Your task to perform on an android device: Search for the best Nike running shoes on Nike.com Image 0: 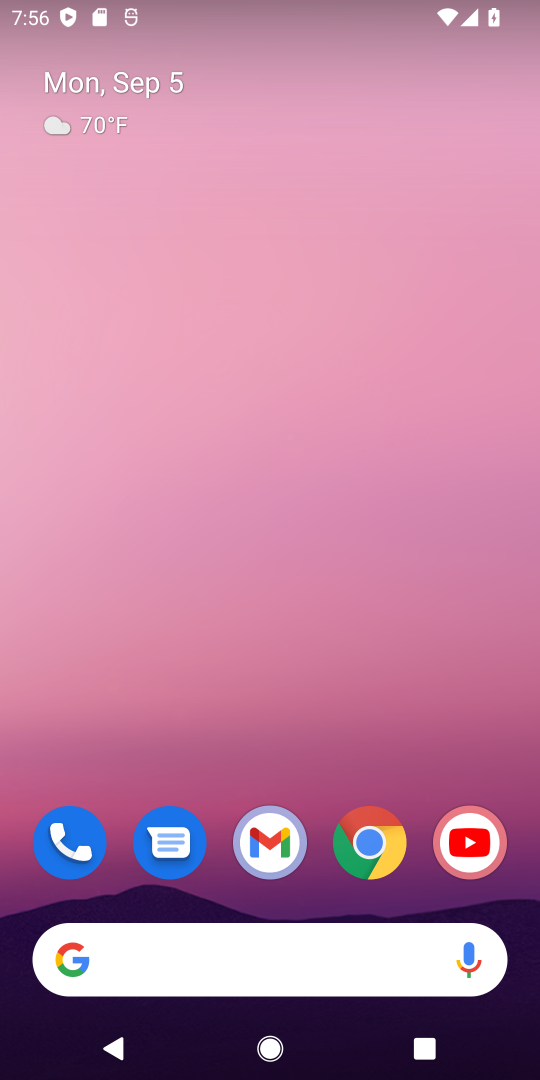
Step 0: click (373, 845)
Your task to perform on an android device: Search for the best Nike running shoes on Nike.com Image 1: 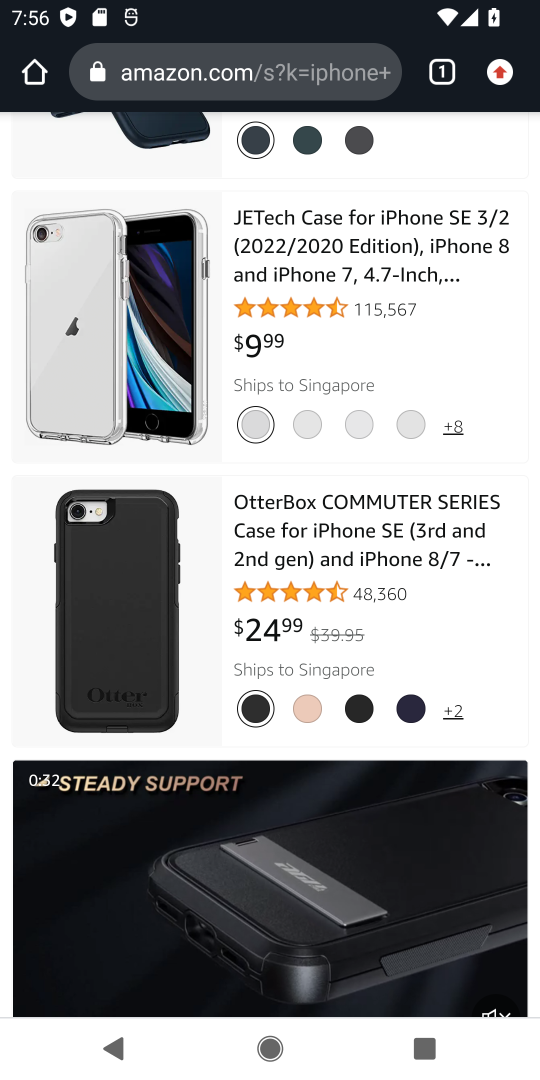
Step 1: click (271, 64)
Your task to perform on an android device: Search for the best Nike running shoes on Nike.com Image 2: 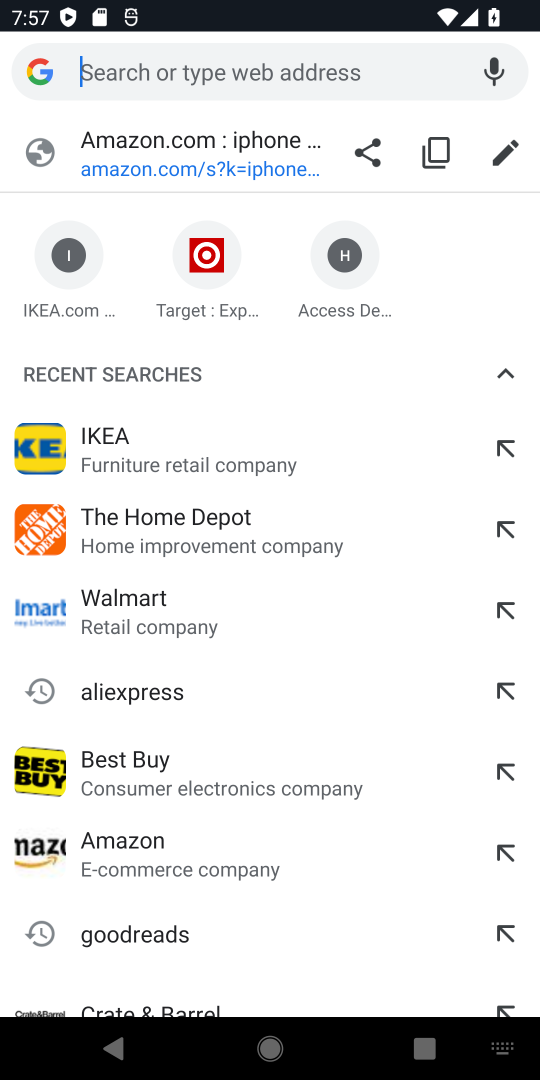
Step 2: type "Nike.com"
Your task to perform on an android device: Search for the best Nike running shoes on Nike.com Image 3: 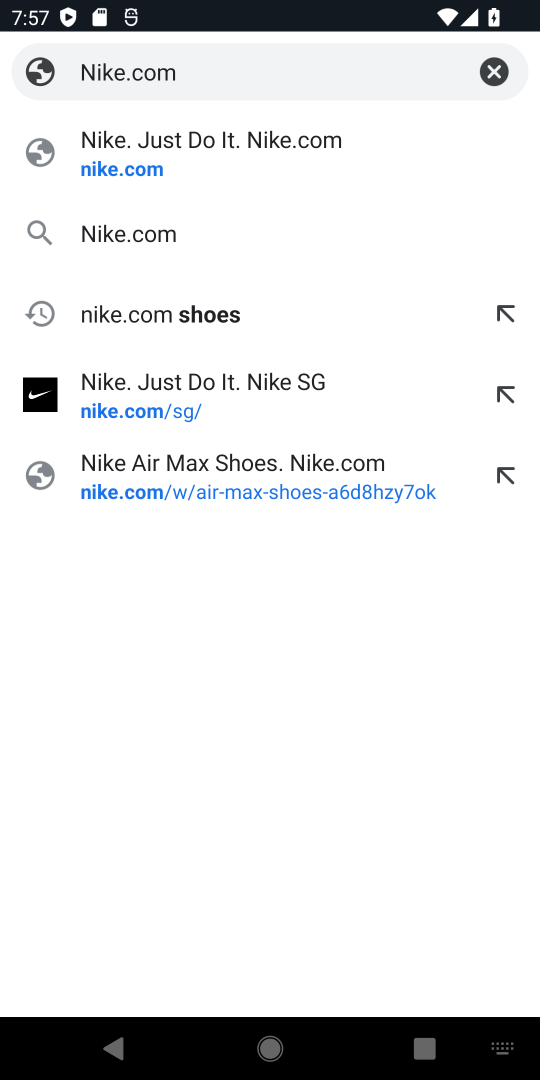
Step 3: click (152, 183)
Your task to perform on an android device: Search for the best Nike running shoes on Nike.com Image 4: 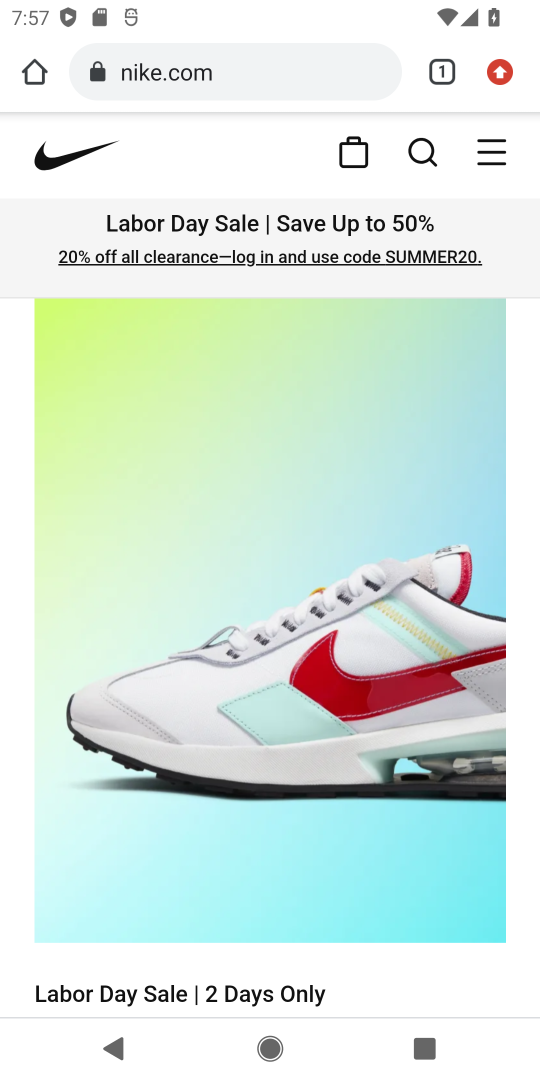
Step 4: click (420, 163)
Your task to perform on an android device: Search for the best Nike running shoes on Nike.com Image 5: 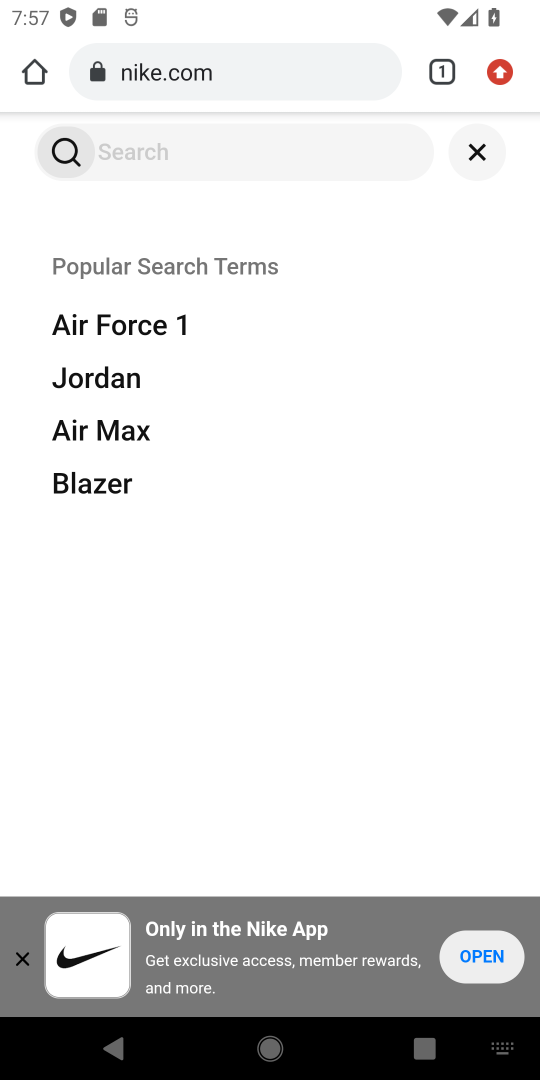
Step 5: click (318, 164)
Your task to perform on an android device: Search for the best Nike running shoes on Nike.com Image 6: 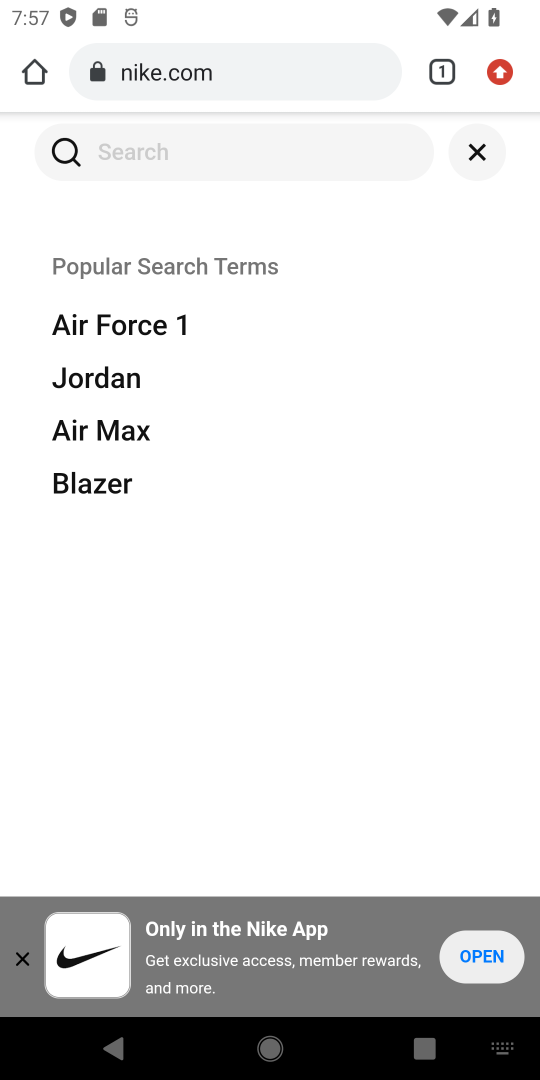
Step 6: click (288, 147)
Your task to perform on an android device: Search for the best Nike running shoes on Nike.com Image 7: 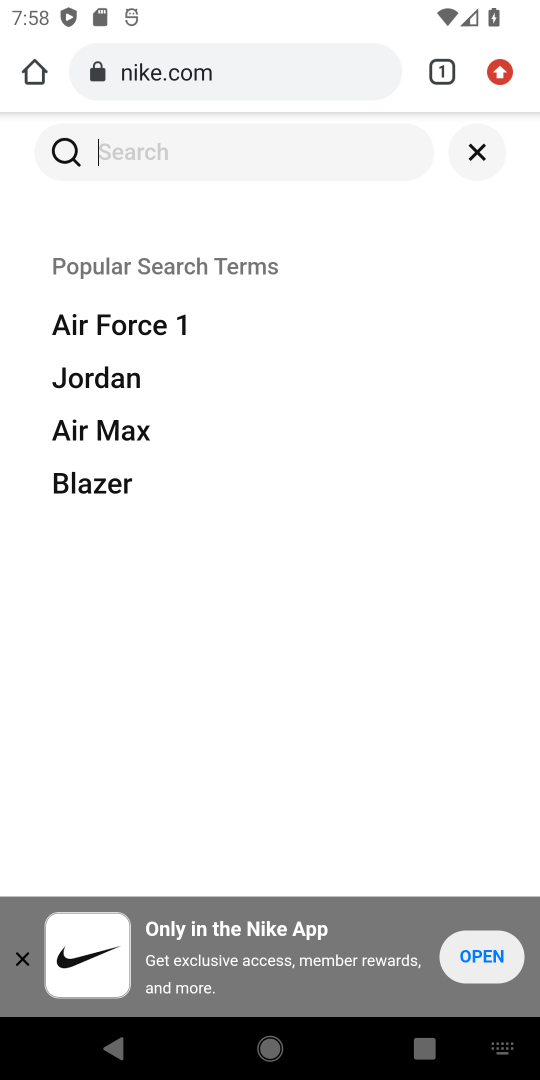
Step 7: type "best Nike running shoes"
Your task to perform on an android device: Search for the best Nike running shoes on Nike.com Image 8: 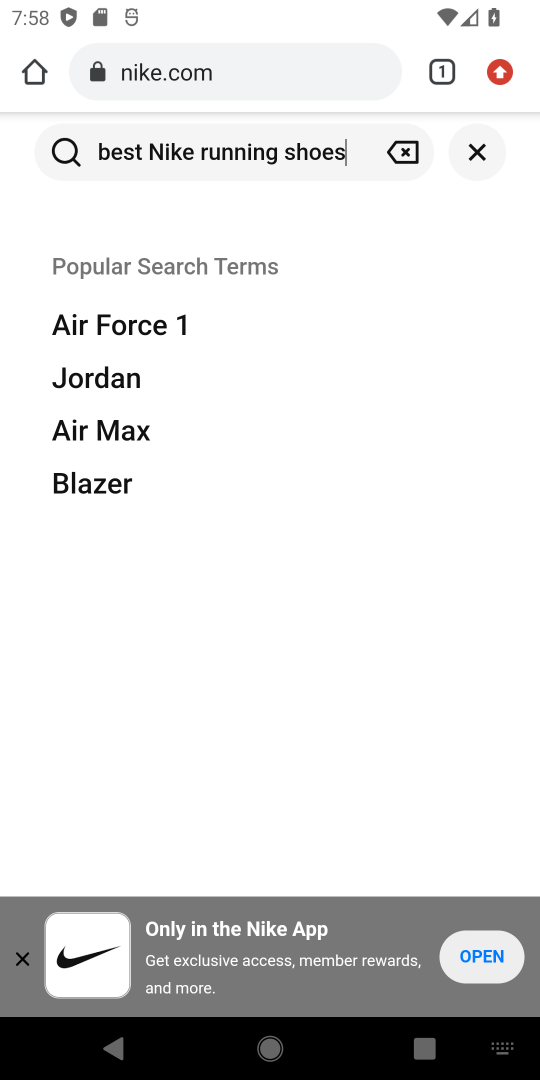
Step 8: click (61, 162)
Your task to perform on an android device: Search for the best Nike running shoes on Nike.com Image 9: 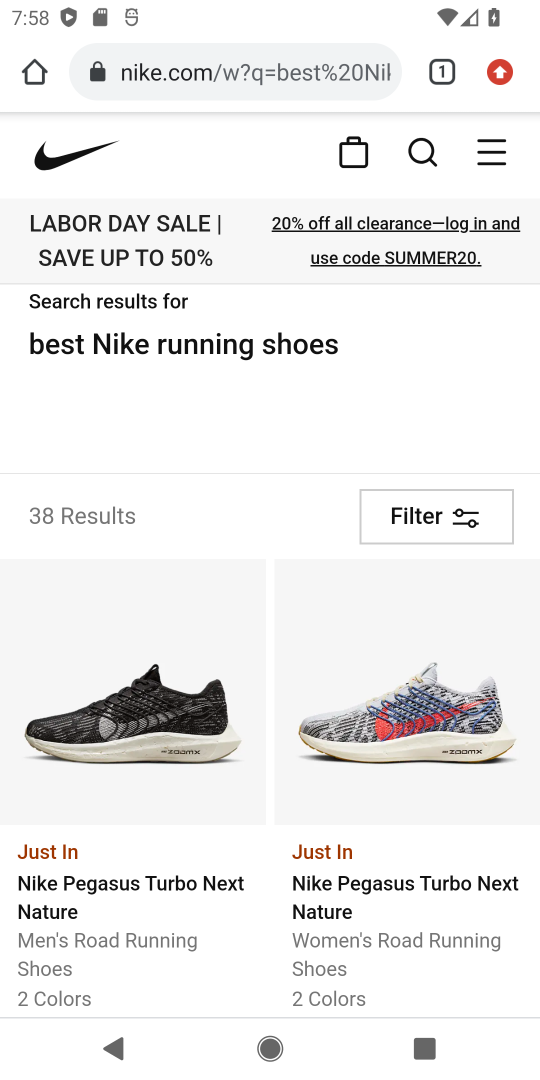
Step 9: drag from (247, 952) to (253, 542)
Your task to perform on an android device: Search for the best Nike running shoes on Nike.com Image 10: 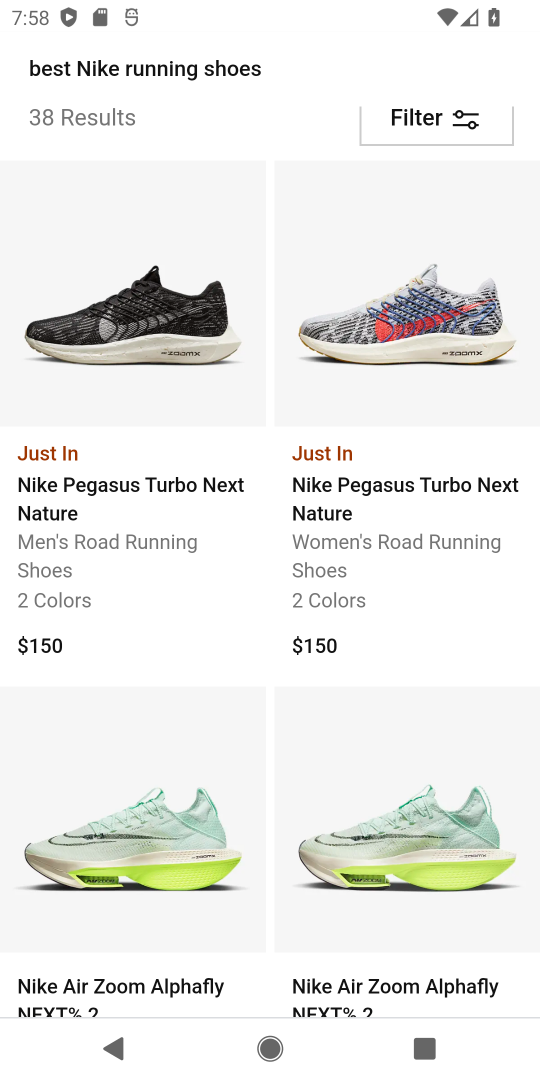
Step 10: drag from (337, 714) to (354, 641)
Your task to perform on an android device: Search for the best Nike running shoes on Nike.com Image 11: 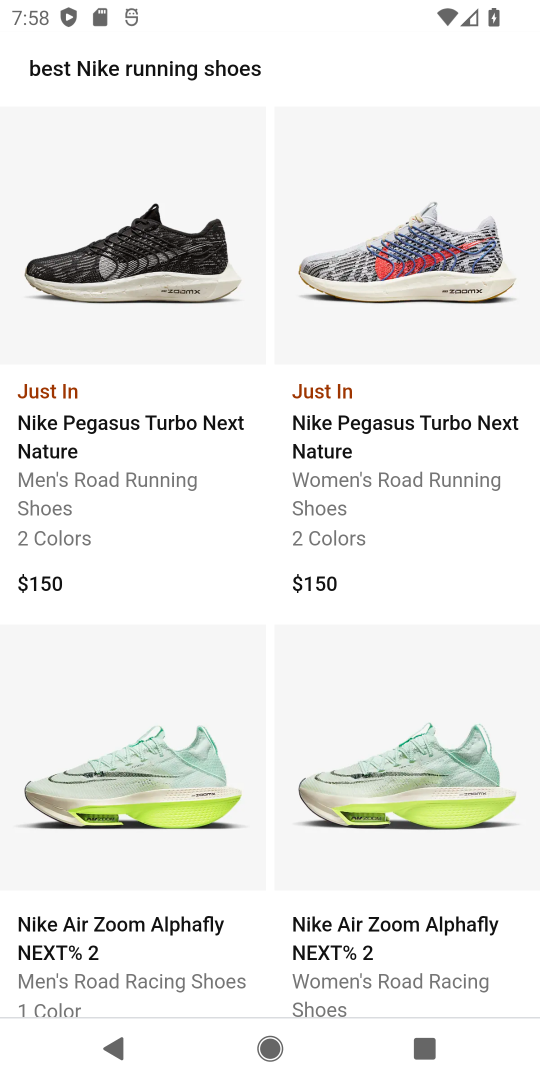
Step 11: drag from (207, 941) to (317, 712)
Your task to perform on an android device: Search for the best Nike running shoes on Nike.com Image 12: 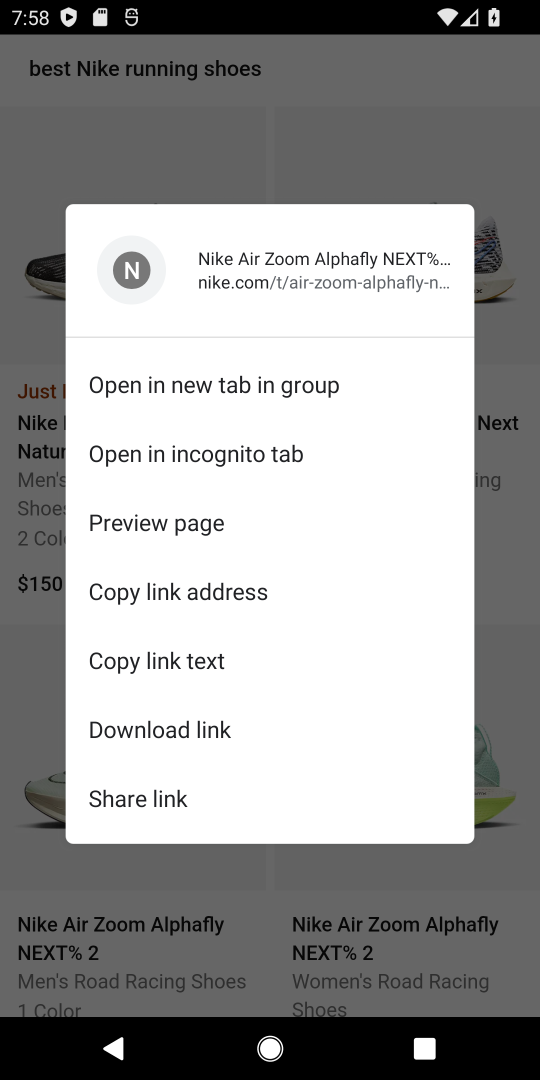
Step 12: click (492, 148)
Your task to perform on an android device: Search for the best Nike running shoes on Nike.com Image 13: 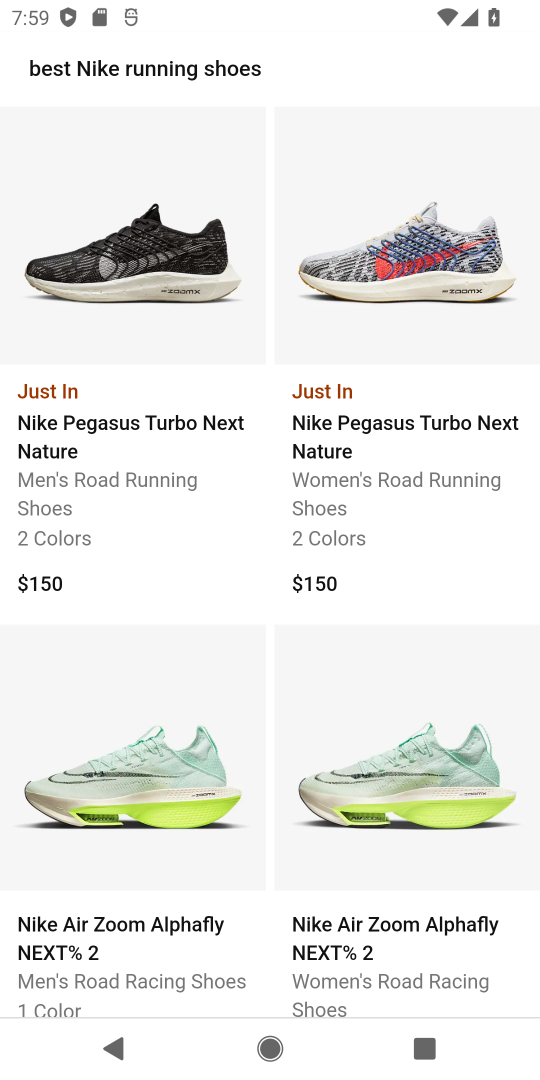
Step 13: task complete